Your task to perform on an android device: add a contact Image 0: 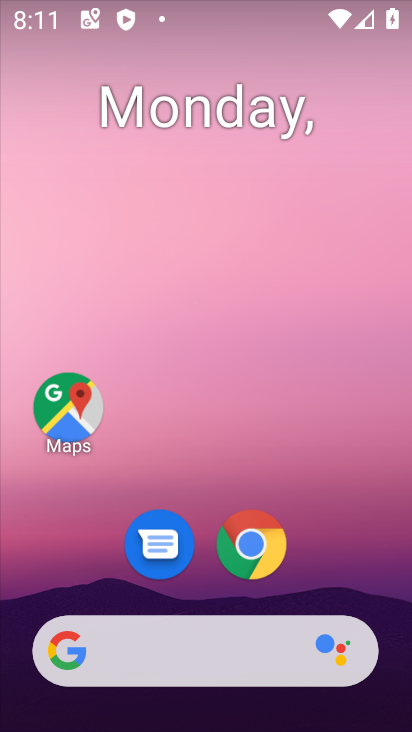
Step 0: drag from (212, 597) to (98, 66)
Your task to perform on an android device: add a contact Image 1: 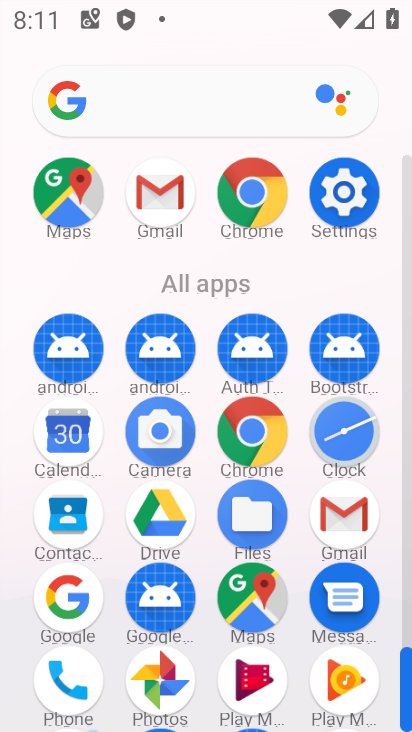
Step 1: click (78, 674)
Your task to perform on an android device: add a contact Image 2: 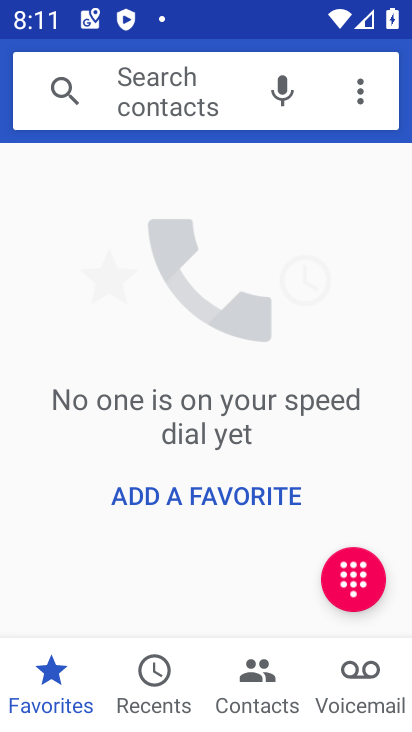
Step 2: click (246, 671)
Your task to perform on an android device: add a contact Image 3: 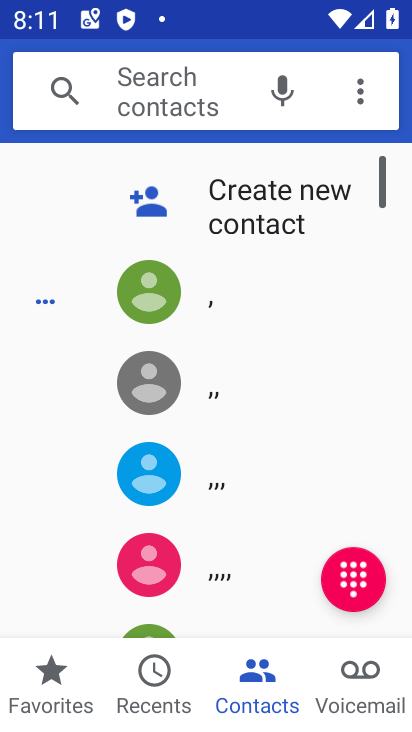
Step 3: click (164, 186)
Your task to perform on an android device: add a contact Image 4: 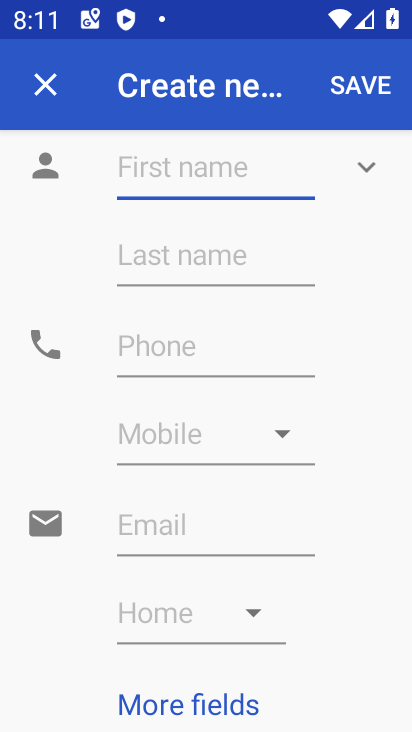
Step 4: type "hyj"
Your task to perform on an android device: add a contact Image 5: 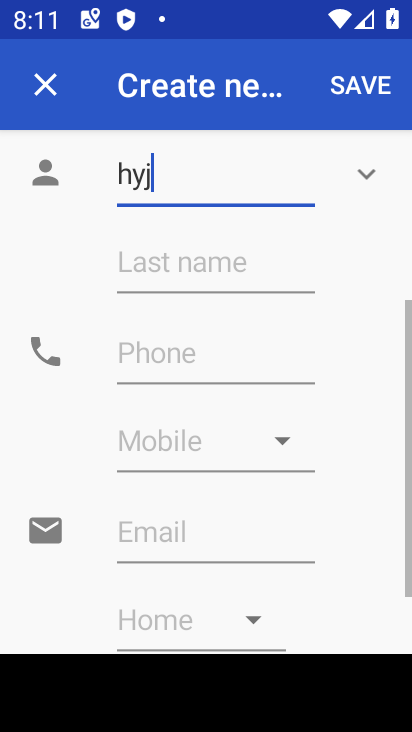
Step 5: type ""
Your task to perform on an android device: add a contact Image 6: 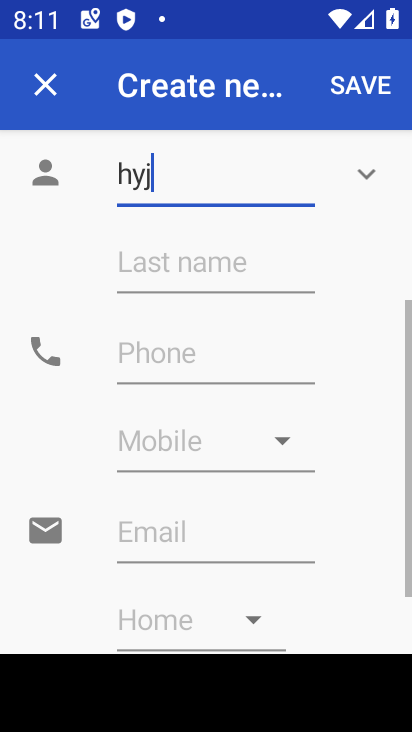
Step 6: click (187, 369)
Your task to perform on an android device: add a contact Image 7: 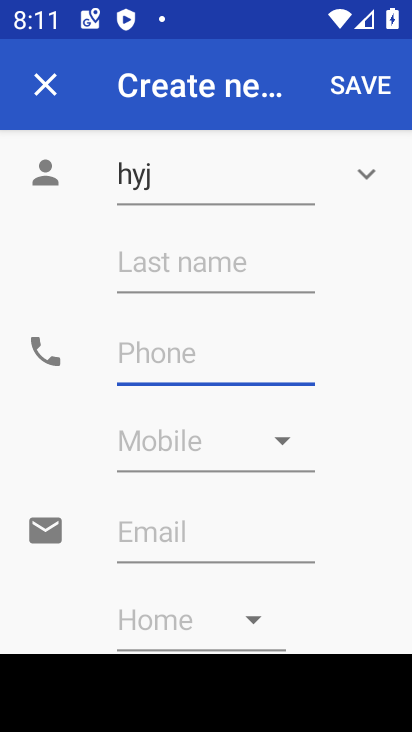
Step 7: type "765"
Your task to perform on an android device: add a contact Image 8: 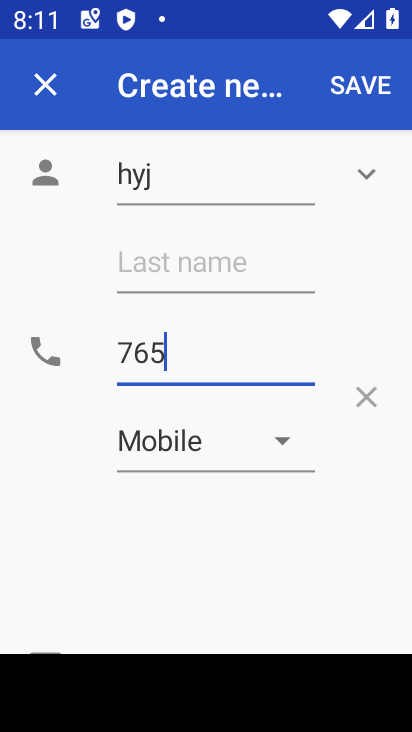
Step 8: type ""
Your task to perform on an android device: add a contact Image 9: 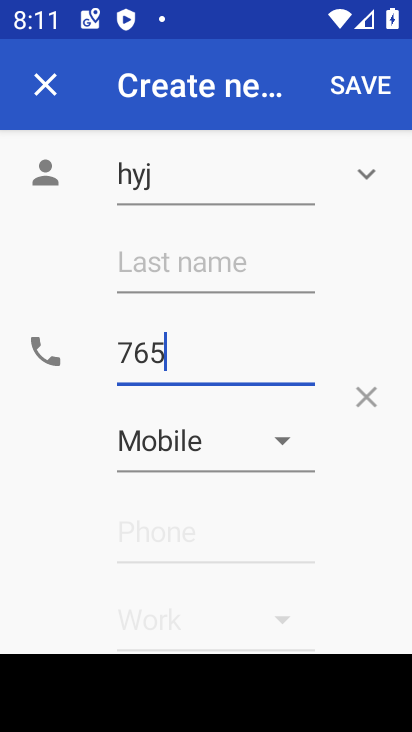
Step 9: click (364, 94)
Your task to perform on an android device: add a contact Image 10: 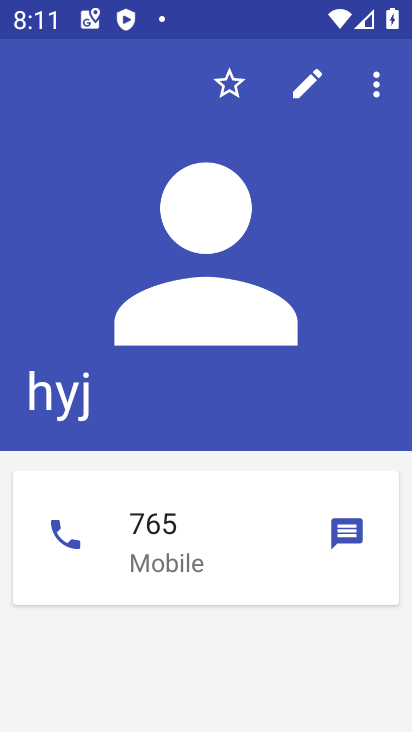
Step 10: task complete